Your task to perform on an android device: turn off notifications in google photos Image 0: 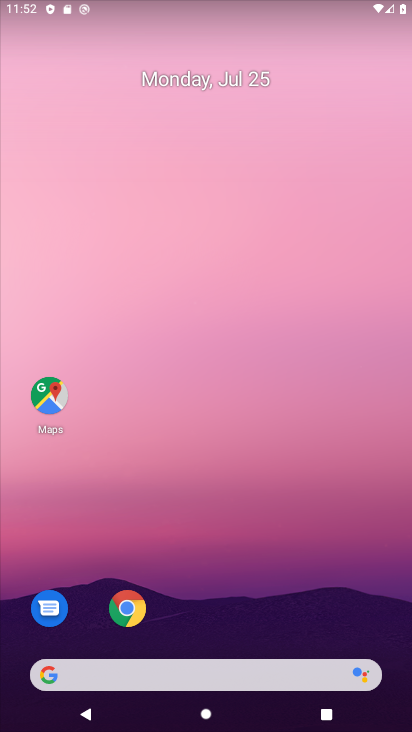
Step 0: drag from (208, 625) to (275, 334)
Your task to perform on an android device: turn off notifications in google photos Image 1: 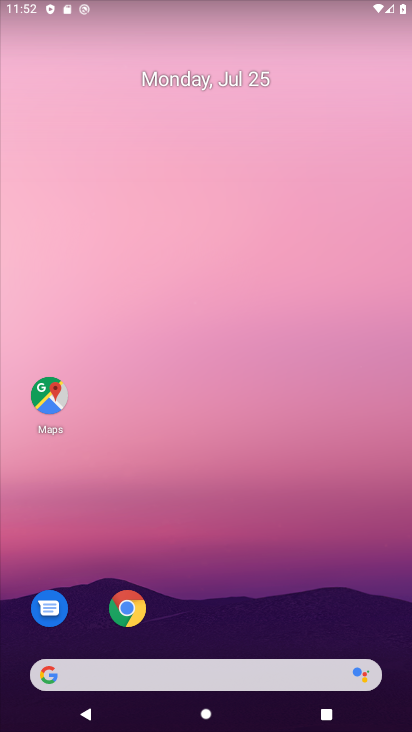
Step 1: drag from (261, 642) to (353, 134)
Your task to perform on an android device: turn off notifications in google photos Image 2: 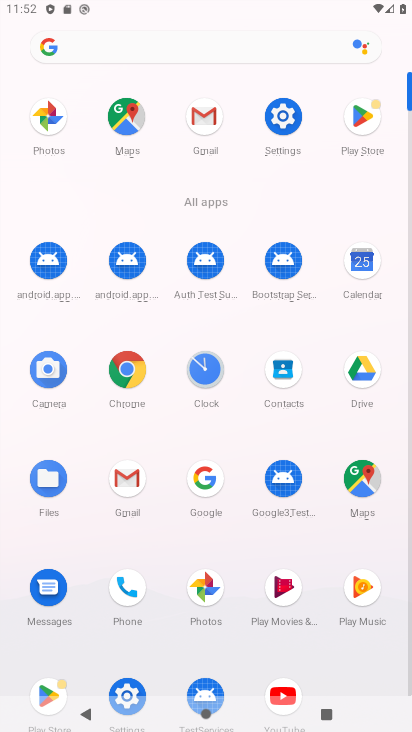
Step 2: click (46, 124)
Your task to perform on an android device: turn off notifications in google photos Image 3: 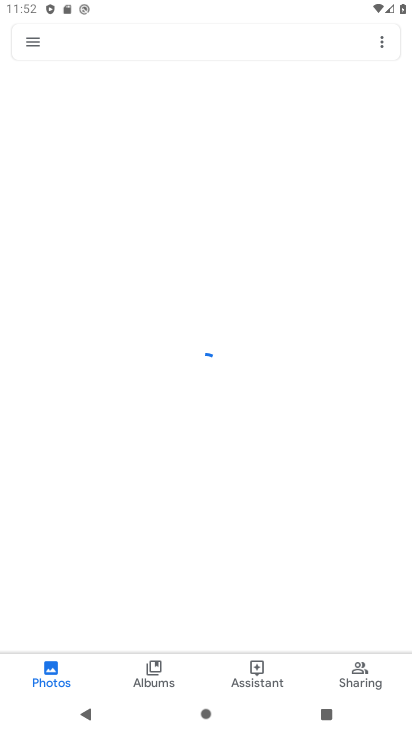
Step 3: task complete